Your task to perform on an android device: Open Chrome and go to settings Image 0: 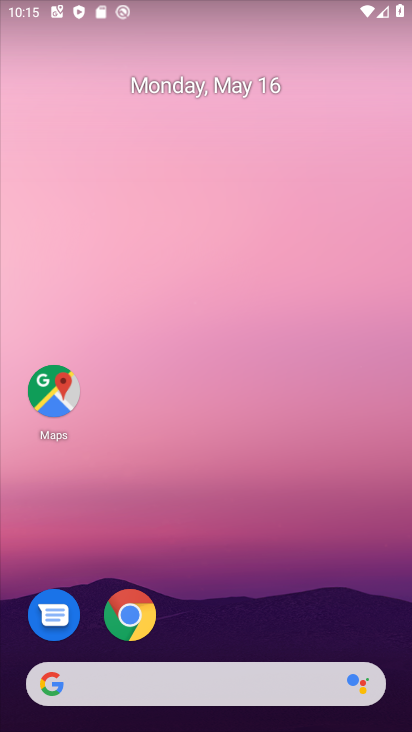
Step 0: drag from (286, 692) to (228, 221)
Your task to perform on an android device: Open Chrome and go to settings Image 1: 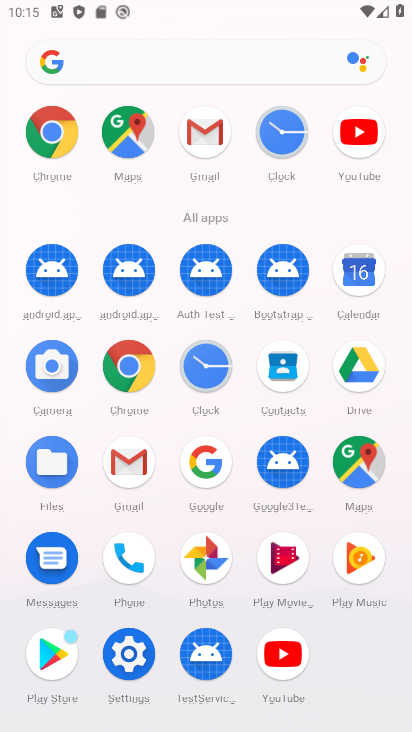
Step 1: click (58, 131)
Your task to perform on an android device: Open Chrome and go to settings Image 2: 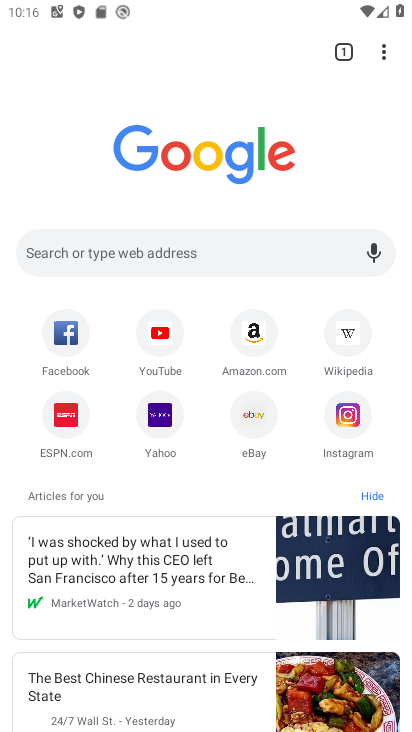
Step 2: click (386, 60)
Your task to perform on an android device: Open Chrome and go to settings Image 3: 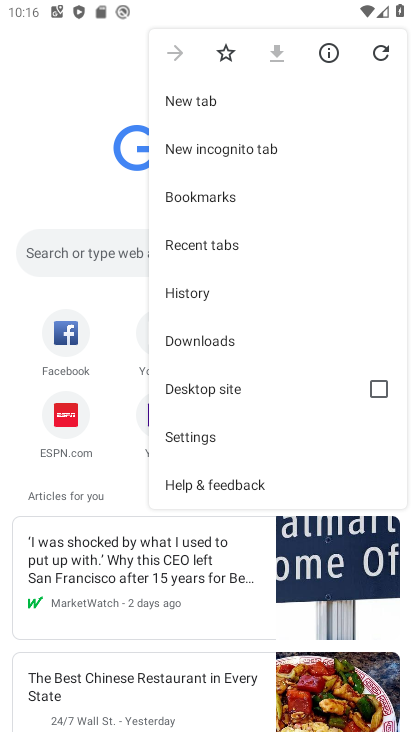
Step 3: click (193, 431)
Your task to perform on an android device: Open Chrome and go to settings Image 4: 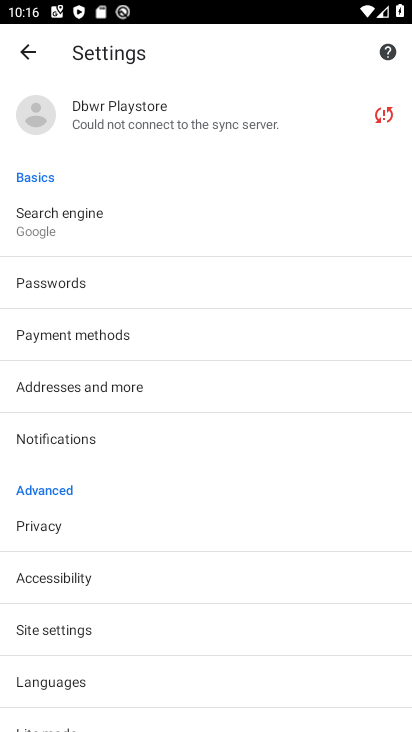
Step 4: task complete